Your task to perform on an android device: all mails in gmail Image 0: 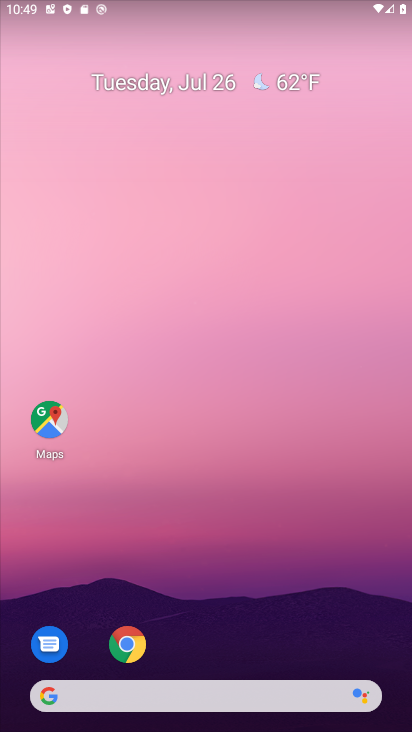
Step 0: drag from (327, 638) to (298, 230)
Your task to perform on an android device: all mails in gmail Image 1: 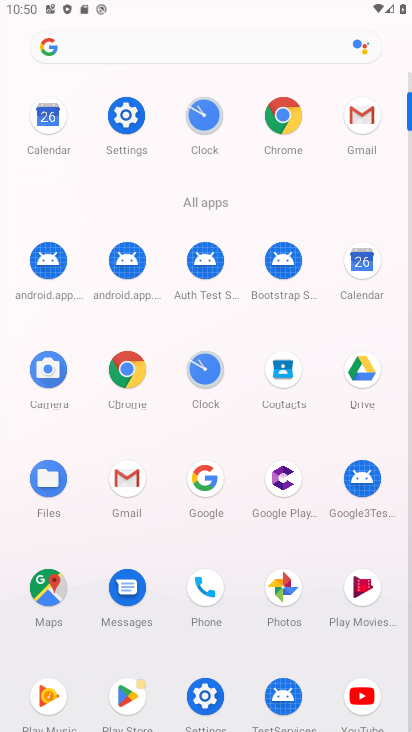
Step 1: click (124, 483)
Your task to perform on an android device: all mails in gmail Image 2: 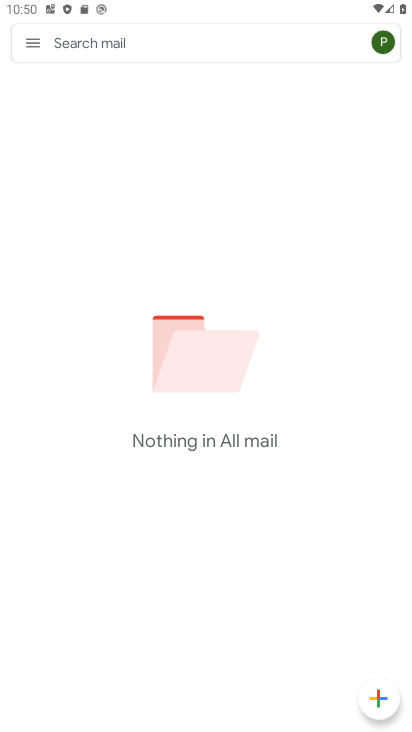
Step 2: task complete